Your task to perform on an android device: choose inbox layout in the gmail app Image 0: 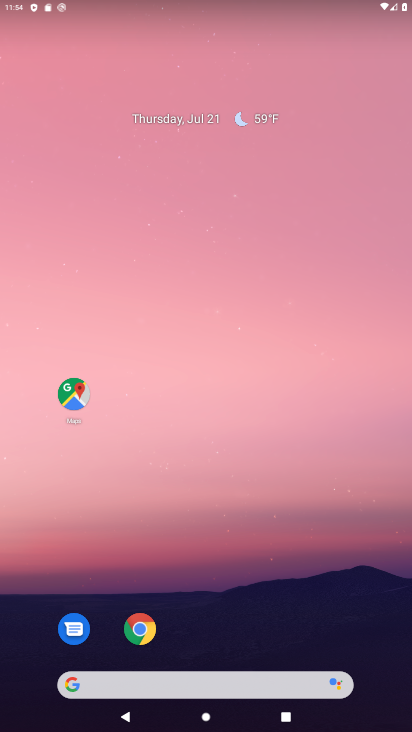
Step 0: drag from (223, 605) to (206, 111)
Your task to perform on an android device: choose inbox layout in the gmail app Image 1: 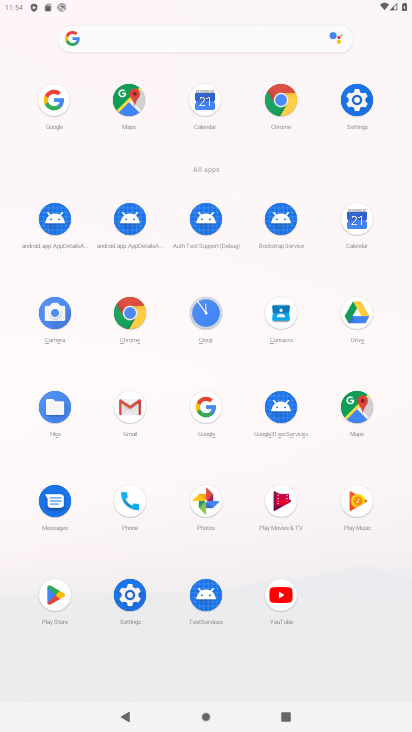
Step 1: click (134, 397)
Your task to perform on an android device: choose inbox layout in the gmail app Image 2: 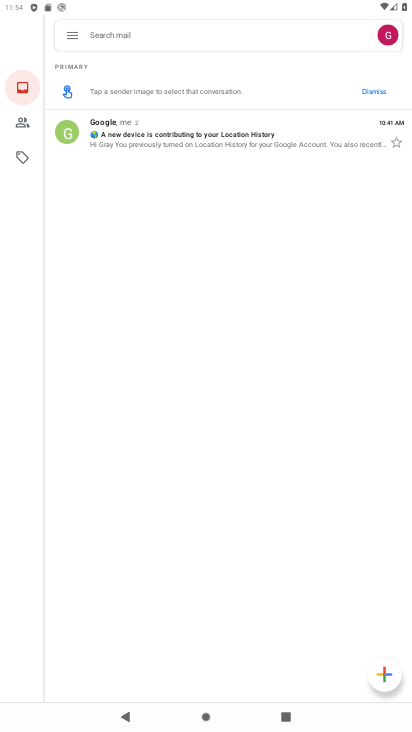
Step 2: click (68, 31)
Your task to perform on an android device: choose inbox layout in the gmail app Image 3: 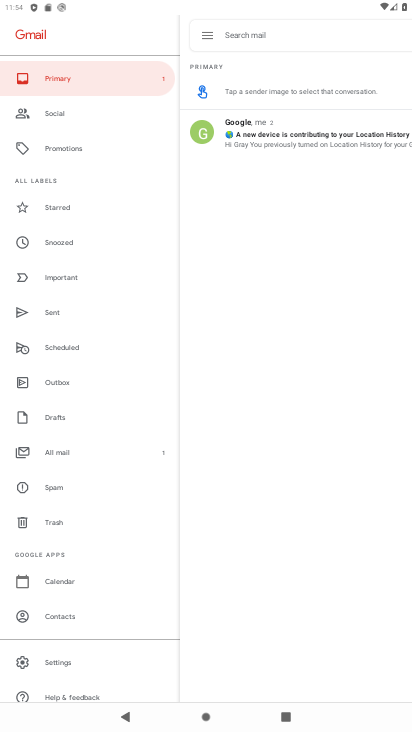
Step 3: click (74, 660)
Your task to perform on an android device: choose inbox layout in the gmail app Image 4: 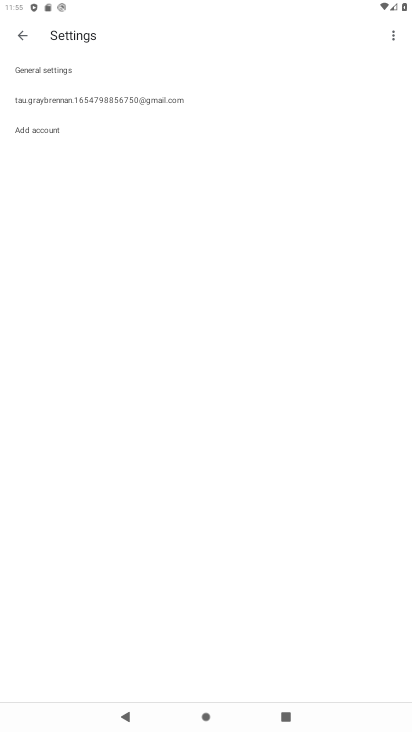
Step 4: click (140, 99)
Your task to perform on an android device: choose inbox layout in the gmail app Image 5: 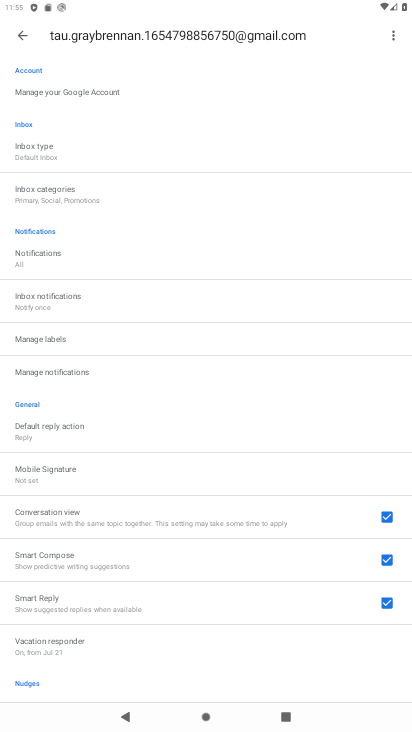
Step 5: click (42, 155)
Your task to perform on an android device: choose inbox layout in the gmail app Image 6: 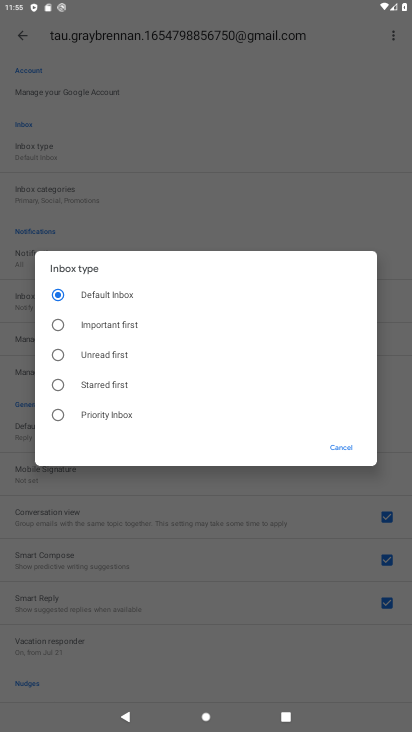
Step 6: task complete